Your task to perform on an android device: Open wifi settings Image 0: 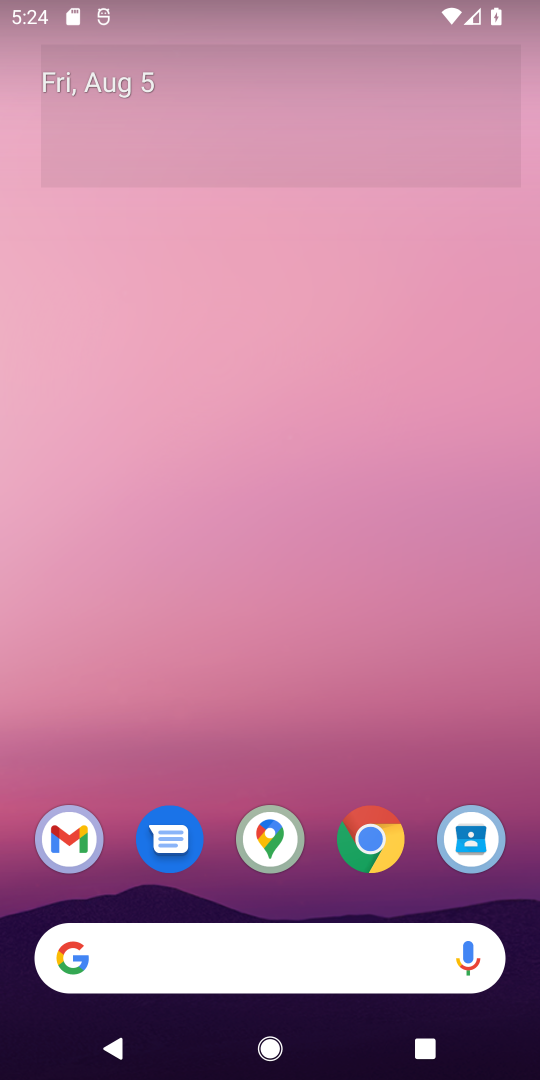
Step 0: drag from (274, 775) to (260, 206)
Your task to perform on an android device: Open wifi settings Image 1: 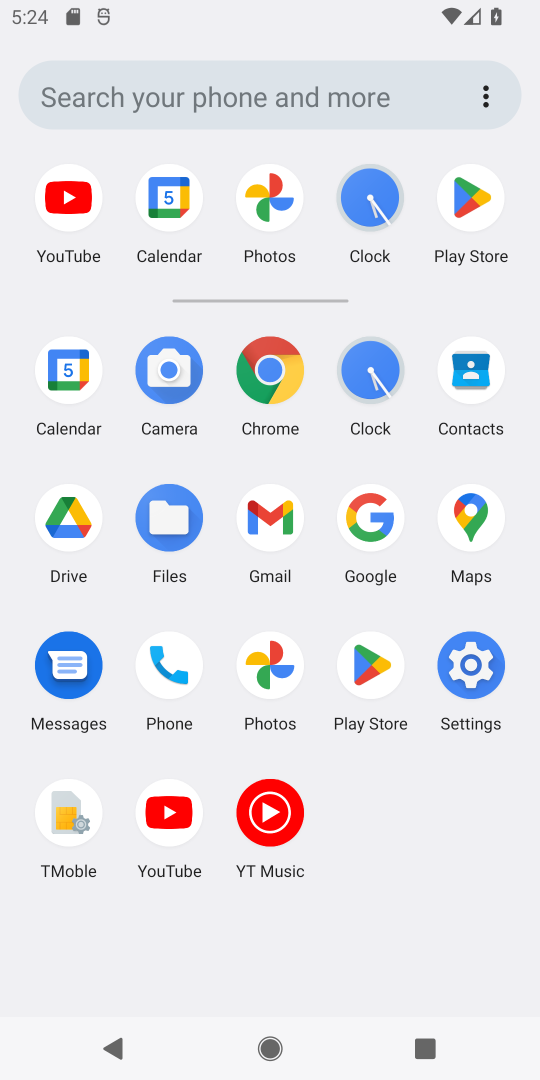
Step 1: click (458, 670)
Your task to perform on an android device: Open wifi settings Image 2: 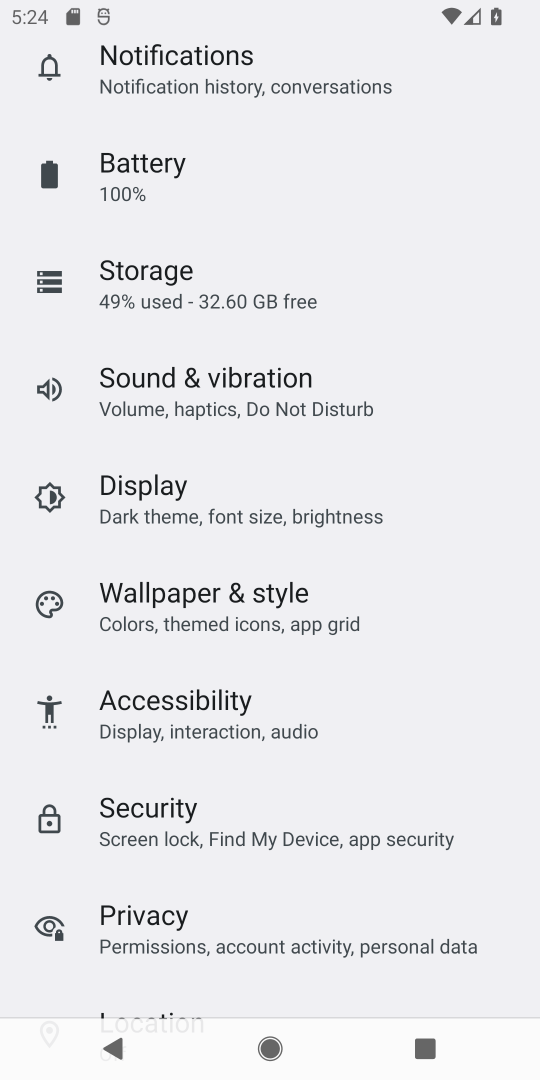
Step 2: drag from (294, 218) to (373, 816)
Your task to perform on an android device: Open wifi settings Image 3: 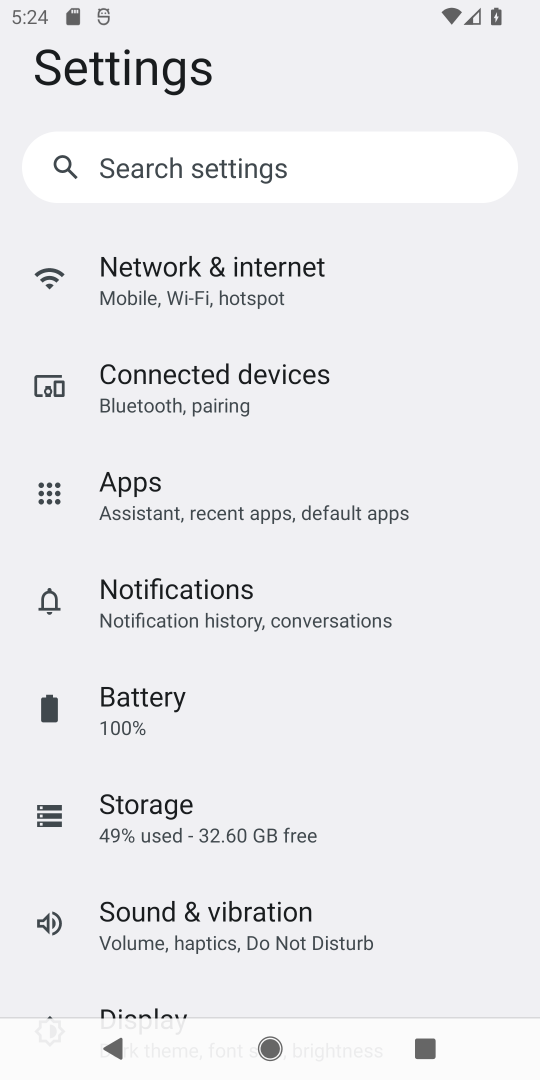
Step 3: click (280, 281)
Your task to perform on an android device: Open wifi settings Image 4: 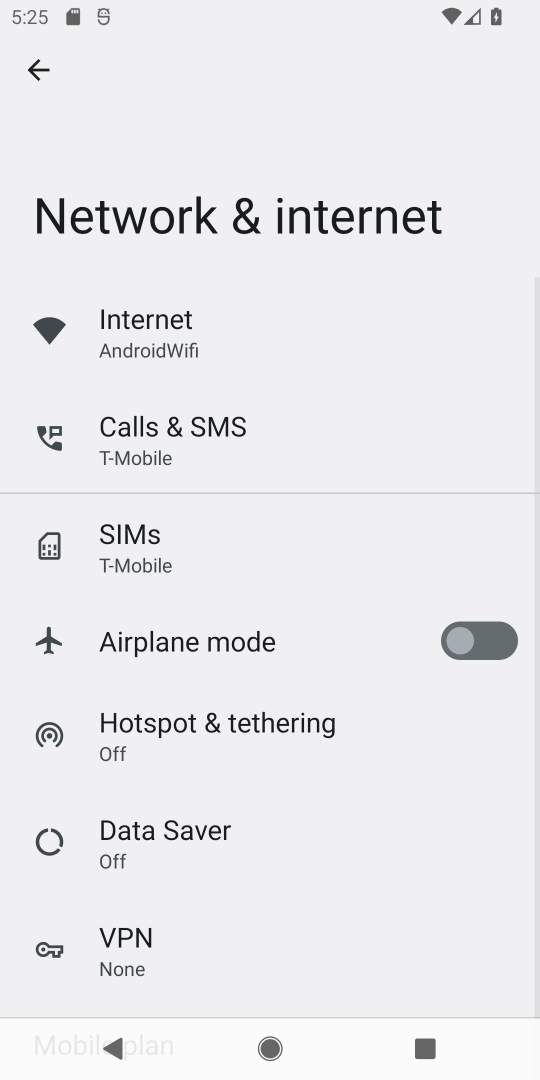
Step 4: click (164, 328)
Your task to perform on an android device: Open wifi settings Image 5: 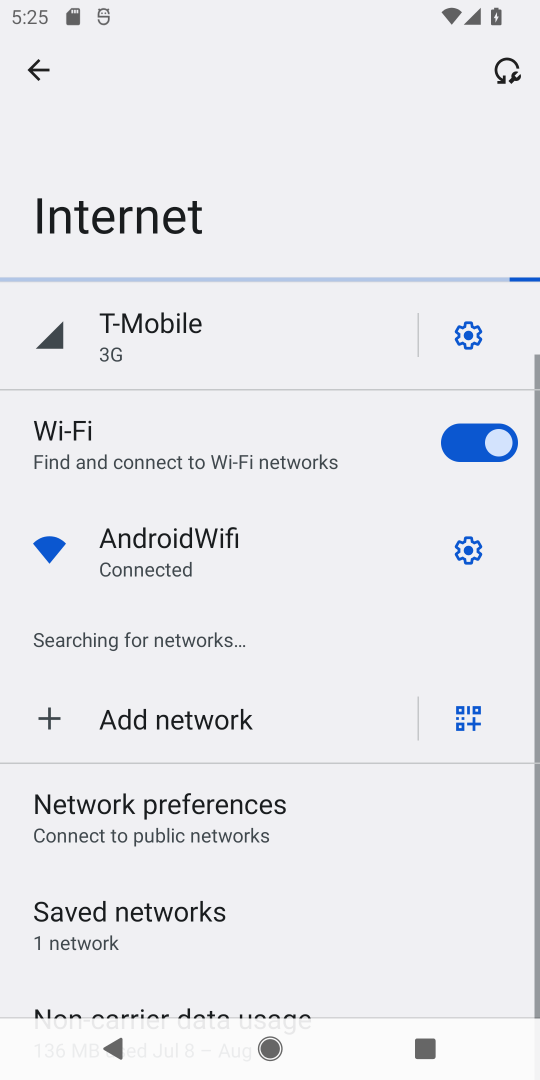
Step 5: task complete